Your task to perform on an android device: check google app version Image 0: 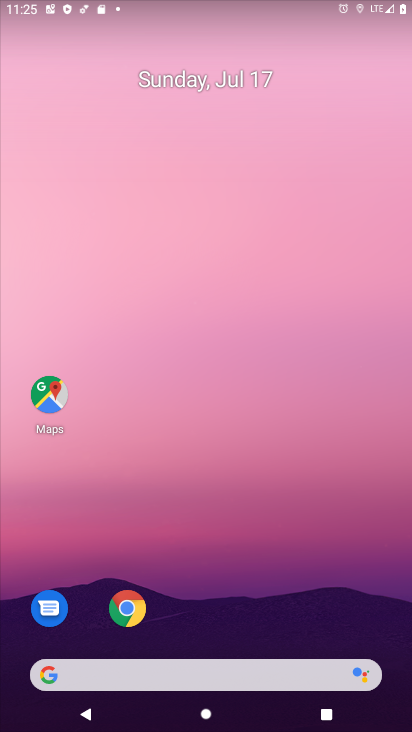
Step 0: drag from (185, 645) to (103, 83)
Your task to perform on an android device: check google app version Image 1: 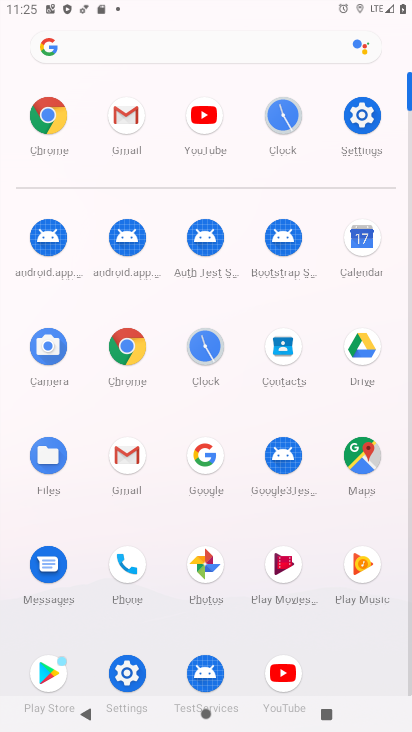
Step 1: click (212, 463)
Your task to perform on an android device: check google app version Image 2: 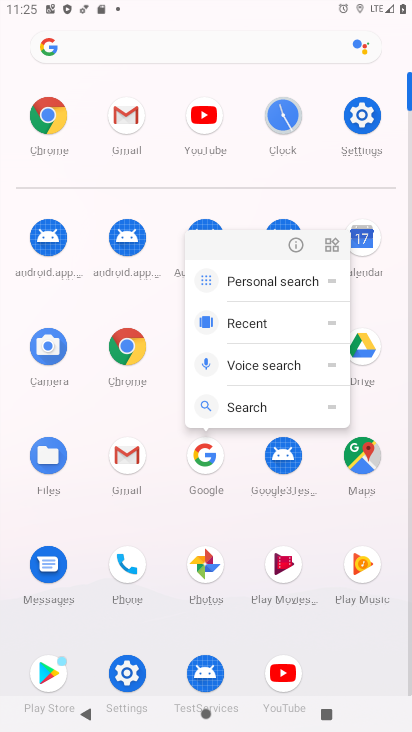
Step 2: click (292, 247)
Your task to perform on an android device: check google app version Image 3: 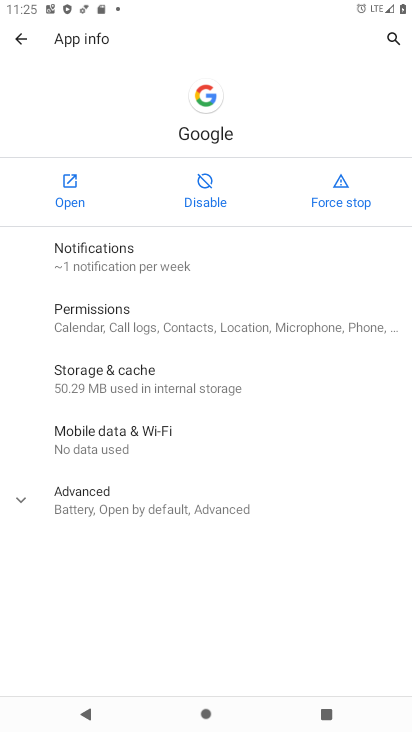
Step 3: click (136, 505)
Your task to perform on an android device: check google app version Image 4: 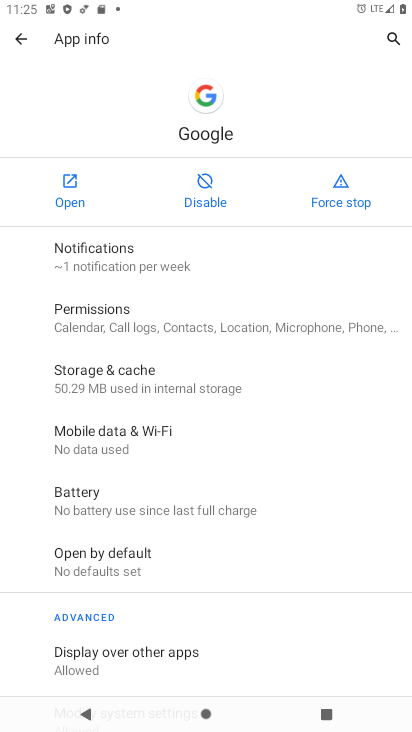
Step 4: task complete